Your task to perform on an android device: check android version Image 0: 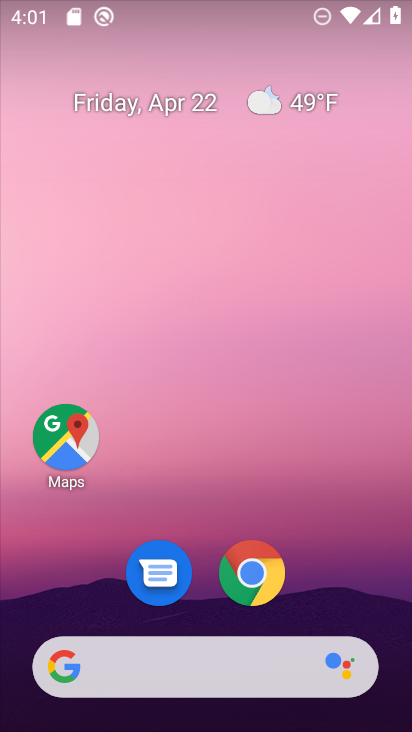
Step 0: drag from (322, 442) to (281, 65)
Your task to perform on an android device: check android version Image 1: 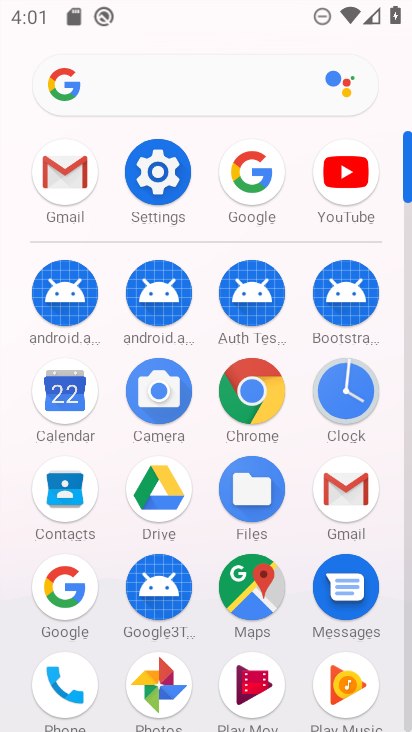
Step 1: click (168, 163)
Your task to perform on an android device: check android version Image 2: 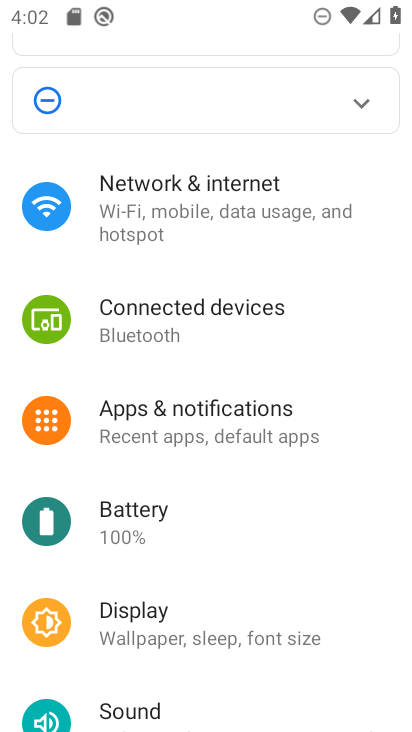
Step 2: drag from (249, 591) to (268, 157)
Your task to perform on an android device: check android version Image 3: 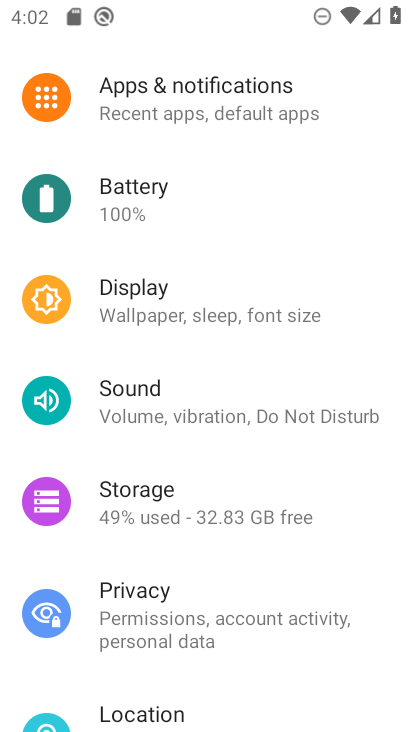
Step 3: drag from (242, 625) to (228, 157)
Your task to perform on an android device: check android version Image 4: 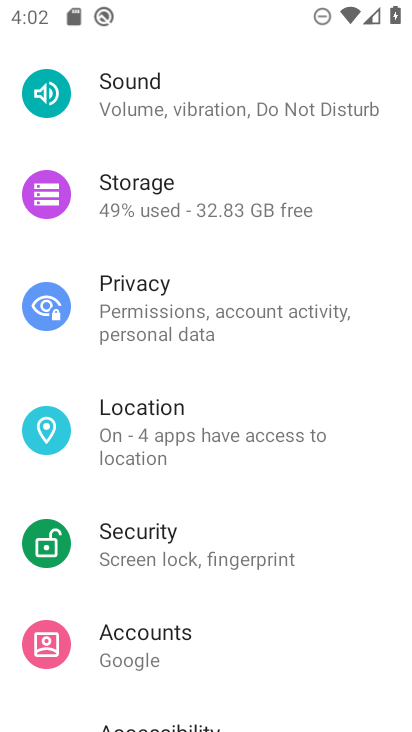
Step 4: drag from (274, 598) to (283, 108)
Your task to perform on an android device: check android version Image 5: 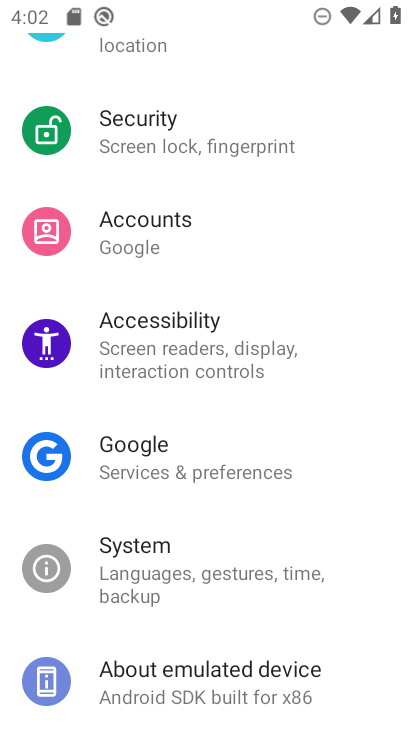
Step 5: drag from (256, 602) to (284, 193)
Your task to perform on an android device: check android version Image 6: 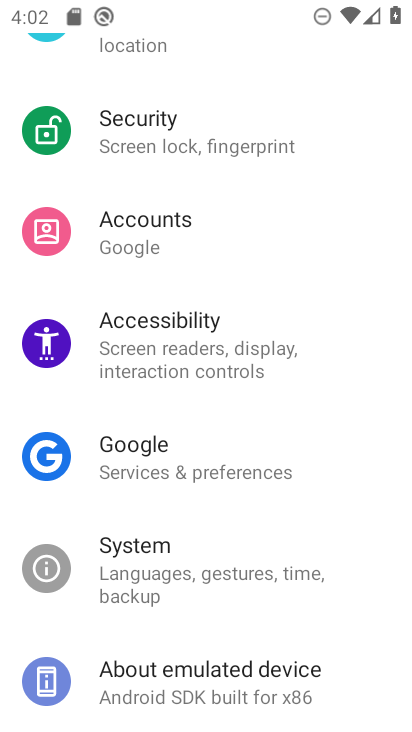
Step 6: click (202, 662)
Your task to perform on an android device: check android version Image 7: 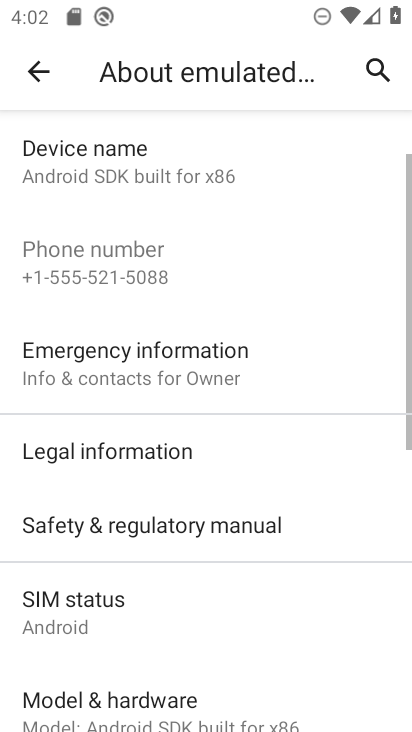
Step 7: task complete